Your task to perform on an android device: check storage Image 0: 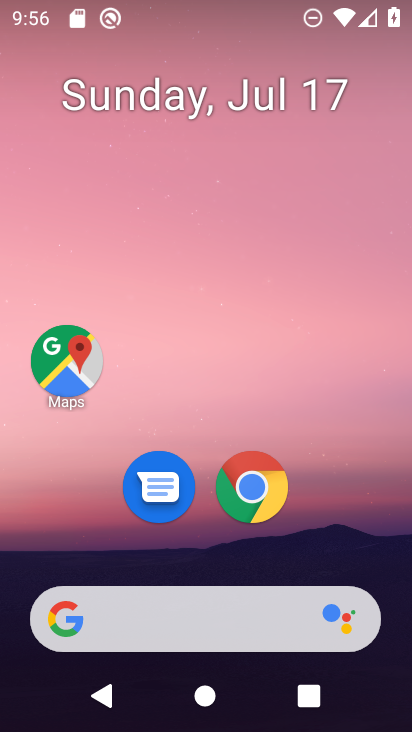
Step 0: press home button
Your task to perform on an android device: check storage Image 1: 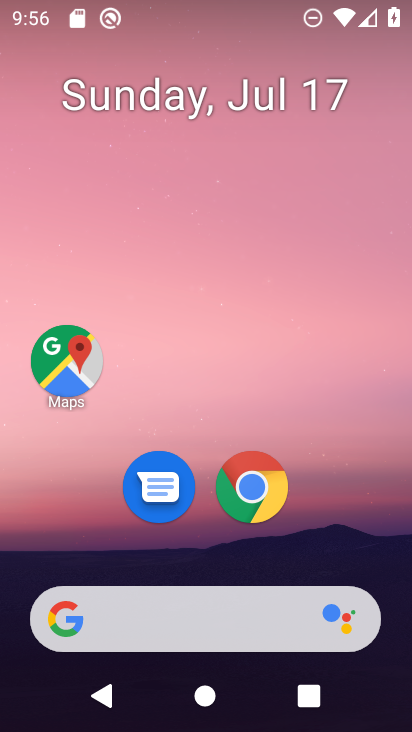
Step 1: drag from (307, 548) to (335, 15)
Your task to perform on an android device: check storage Image 2: 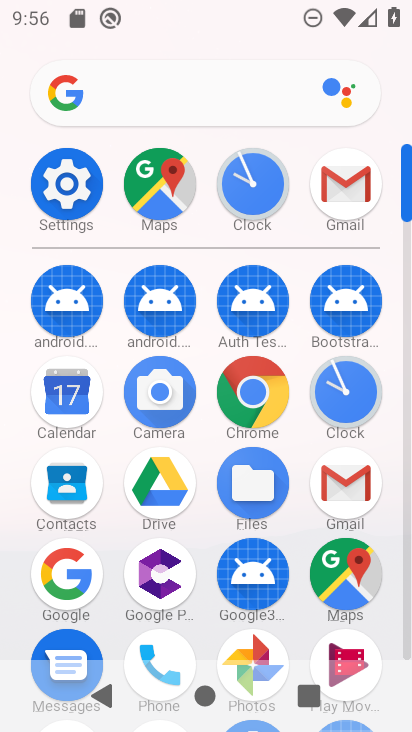
Step 2: click (68, 189)
Your task to perform on an android device: check storage Image 3: 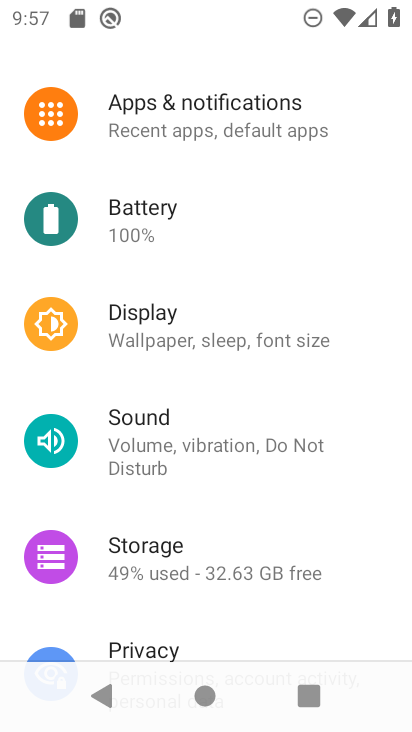
Step 3: click (171, 560)
Your task to perform on an android device: check storage Image 4: 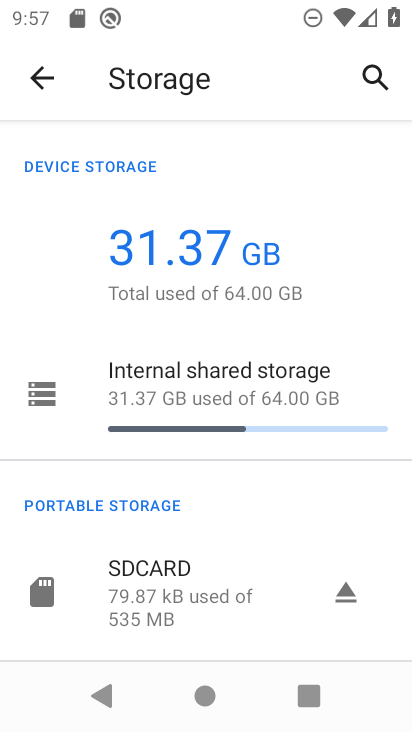
Step 4: task complete